Your task to perform on an android device: Open my contact list Image 0: 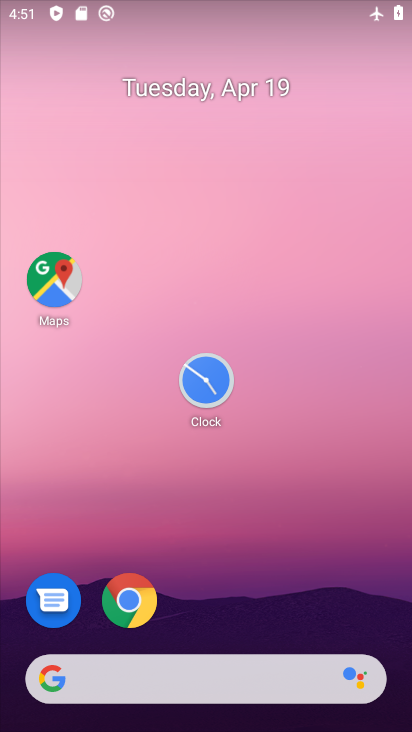
Step 0: drag from (363, 611) to (100, 142)
Your task to perform on an android device: Open my contact list Image 1: 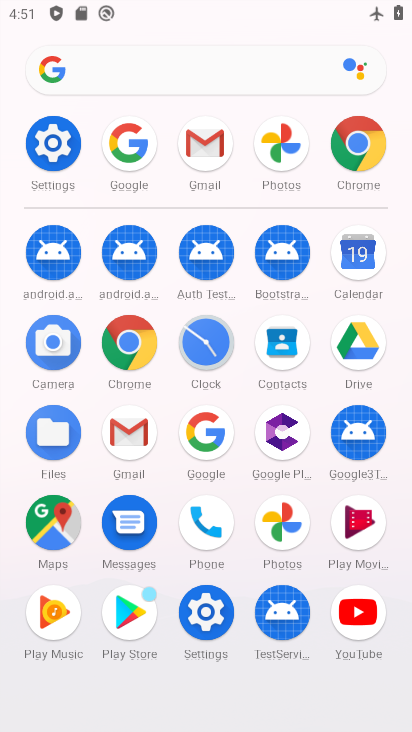
Step 1: click (277, 338)
Your task to perform on an android device: Open my contact list Image 2: 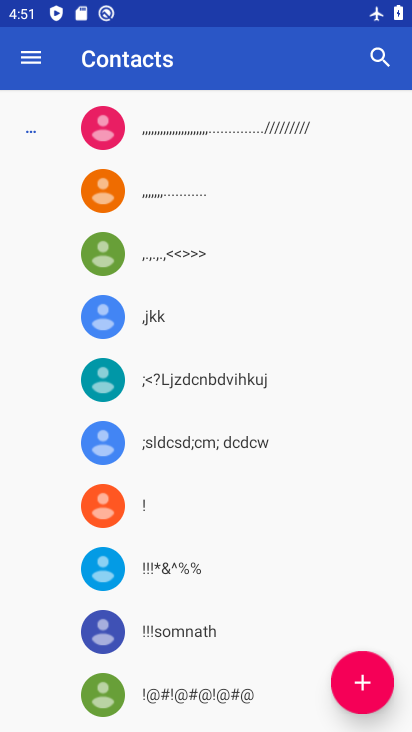
Step 2: click (360, 673)
Your task to perform on an android device: Open my contact list Image 3: 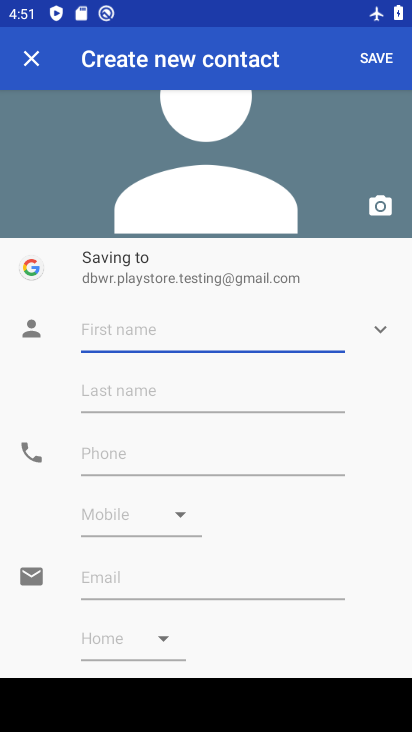
Step 3: type "raju"
Your task to perform on an android device: Open my contact list Image 4: 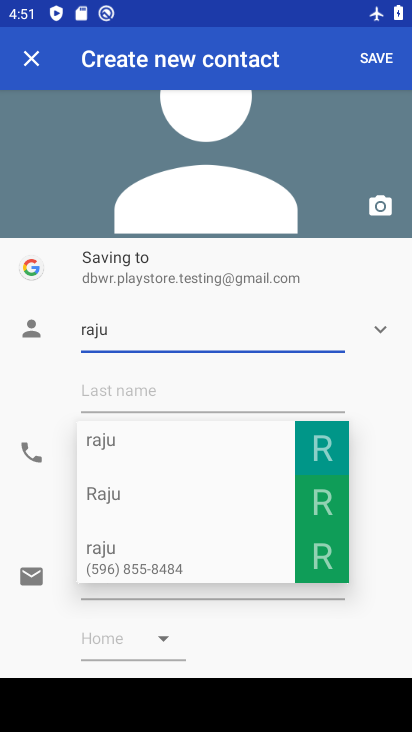
Step 4: click (105, 393)
Your task to perform on an android device: Open my contact list Image 5: 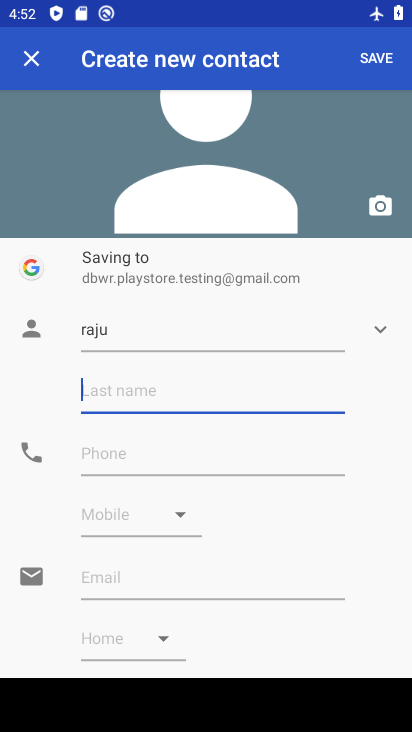
Step 5: click (98, 456)
Your task to perform on an android device: Open my contact list Image 6: 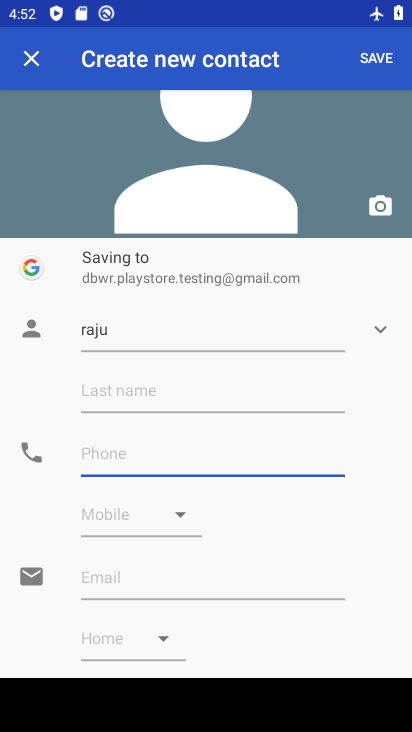
Step 6: type "9789445634"
Your task to perform on an android device: Open my contact list Image 7: 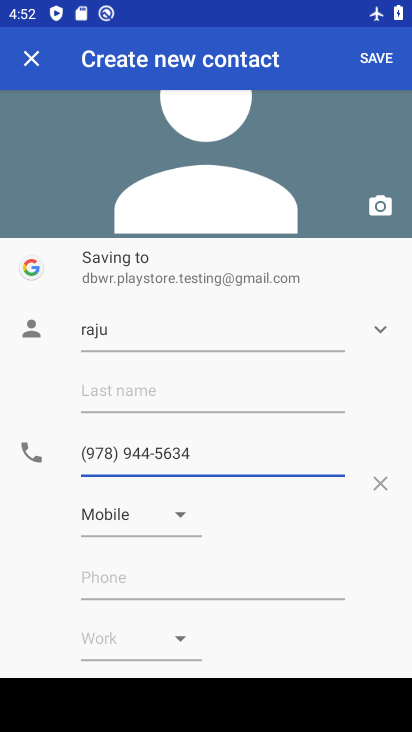
Step 7: click (374, 58)
Your task to perform on an android device: Open my contact list Image 8: 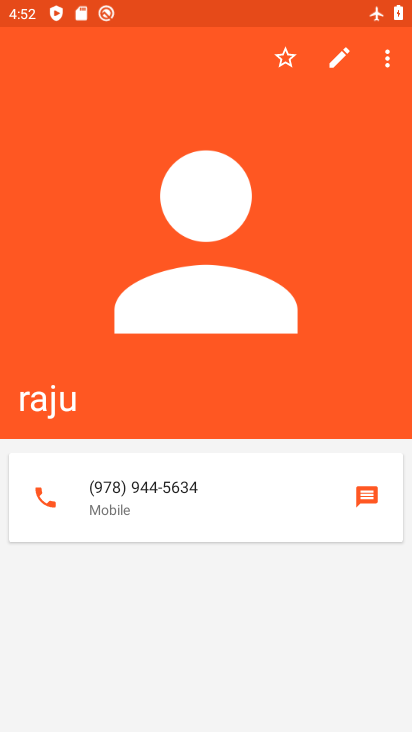
Step 8: task complete